Your task to perform on an android device: create a new album in the google photos Image 0: 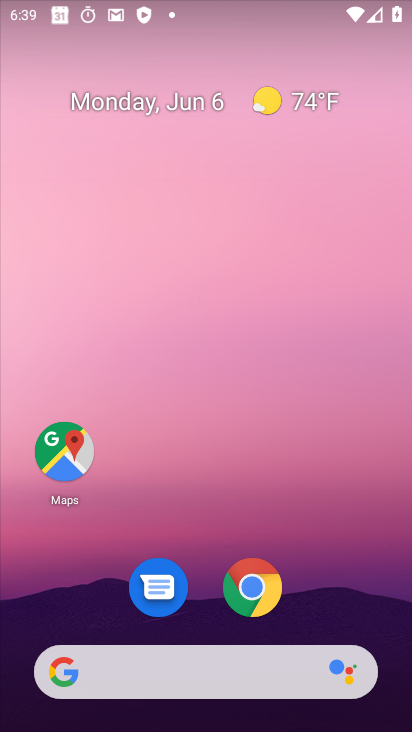
Step 0: drag from (400, 644) to (295, 38)
Your task to perform on an android device: create a new album in the google photos Image 1: 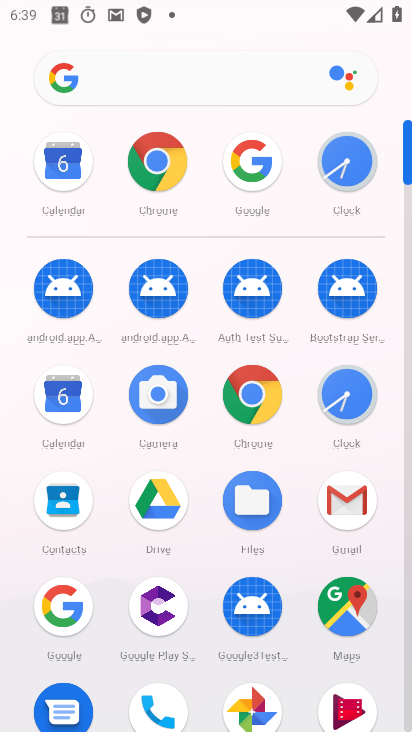
Step 1: click (265, 690)
Your task to perform on an android device: create a new album in the google photos Image 2: 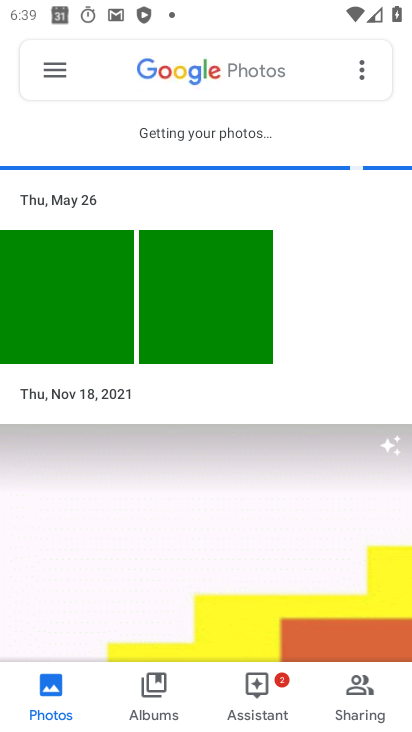
Step 2: click (95, 315)
Your task to perform on an android device: create a new album in the google photos Image 3: 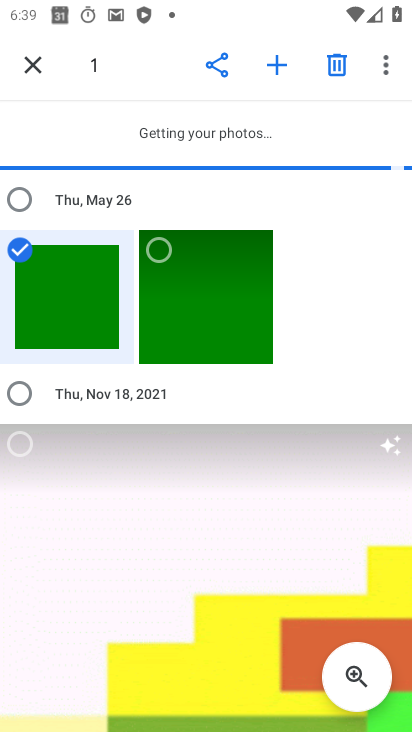
Step 3: click (178, 306)
Your task to perform on an android device: create a new album in the google photos Image 4: 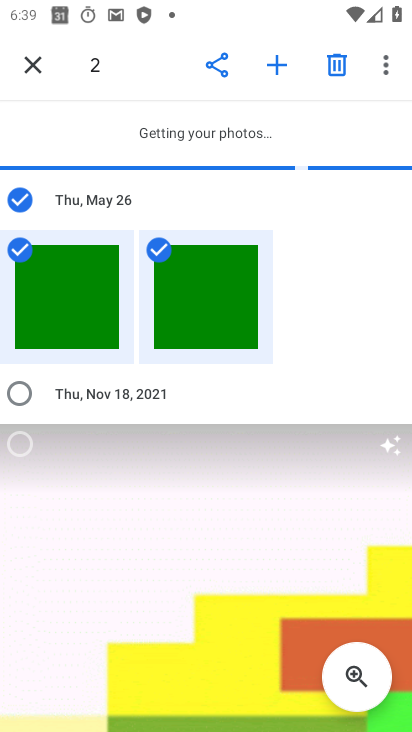
Step 4: click (288, 62)
Your task to perform on an android device: create a new album in the google photos Image 5: 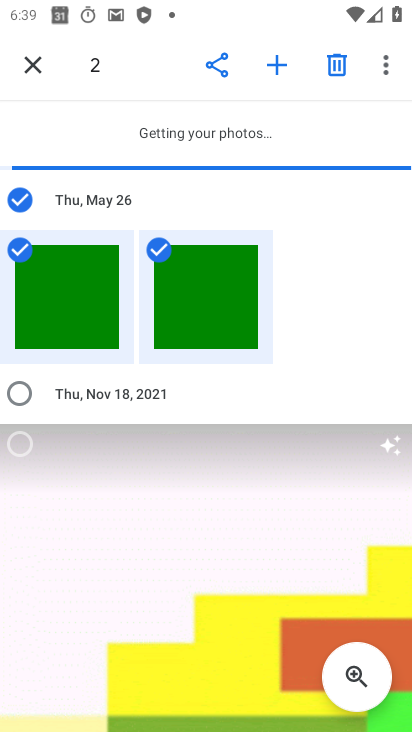
Step 5: click (276, 60)
Your task to perform on an android device: create a new album in the google photos Image 6: 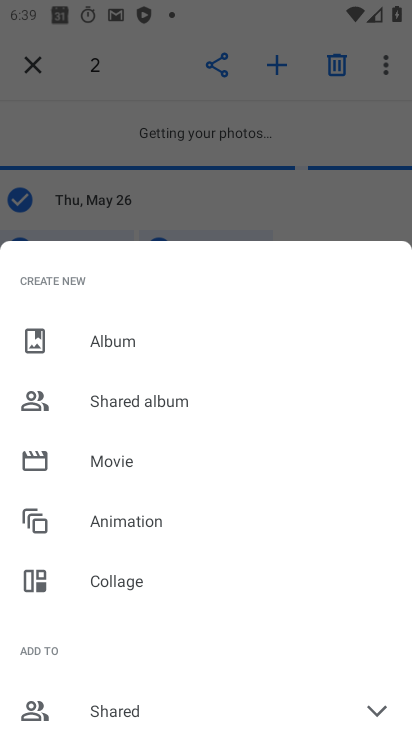
Step 6: click (138, 340)
Your task to perform on an android device: create a new album in the google photos Image 7: 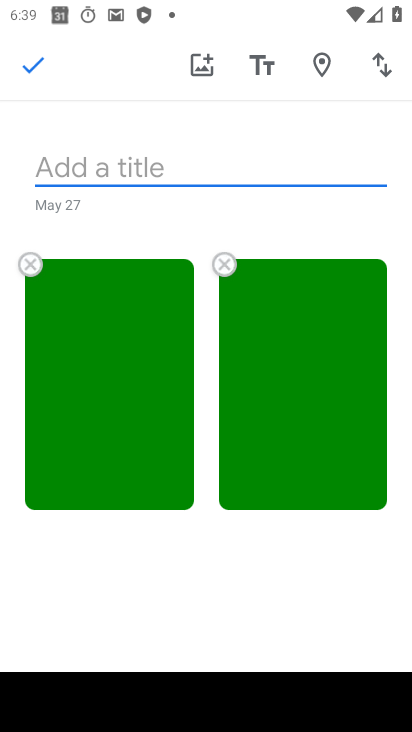
Step 7: type "hsssssss"
Your task to perform on an android device: create a new album in the google photos Image 8: 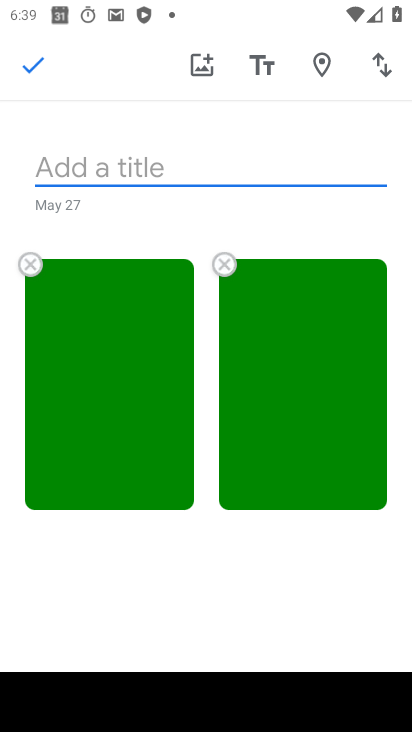
Step 8: click (39, 53)
Your task to perform on an android device: create a new album in the google photos Image 9: 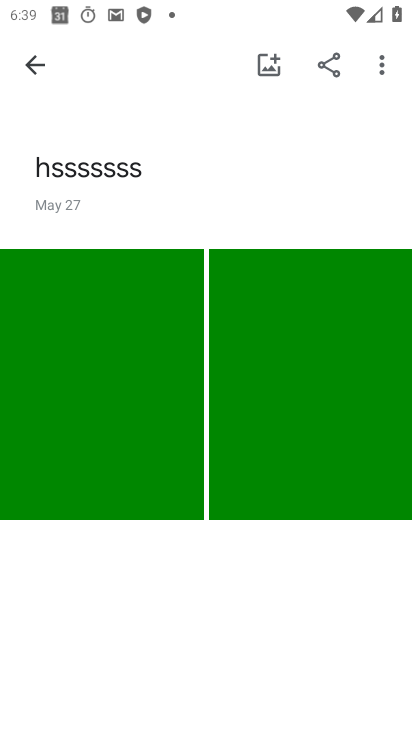
Step 9: task complete